Your task to perform on an android device: visit the assistant section in the google photos Image 0: 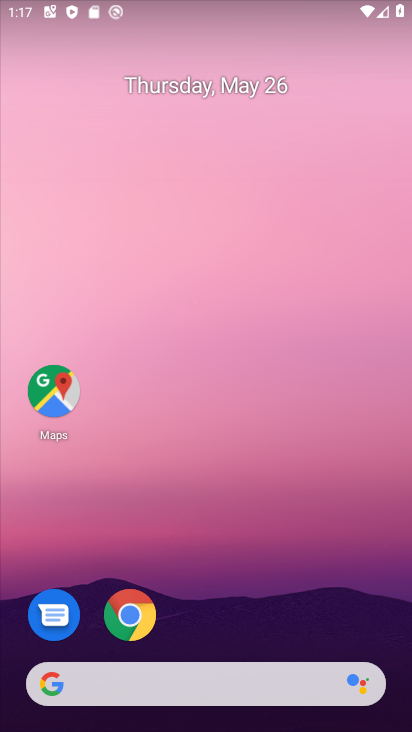
Step 0: drag from (225, 605) to (272, 144)
Your task to perform on an android device: visit the assistant section in the google photos Image 1: 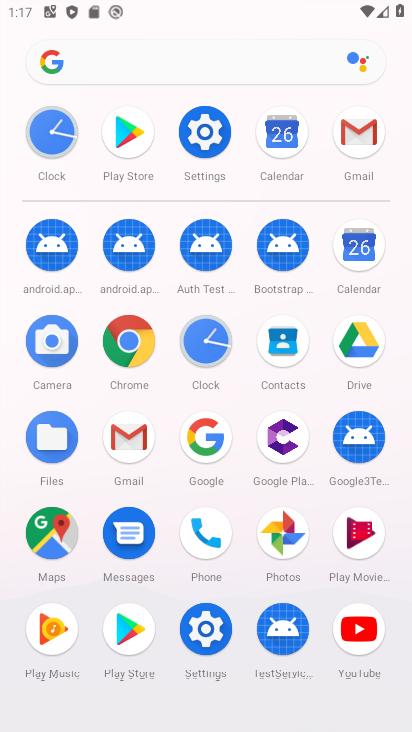
Step 1: click (290, 528)
Your task to perform on an android device: visit the assistant section in the google photos Image 2: 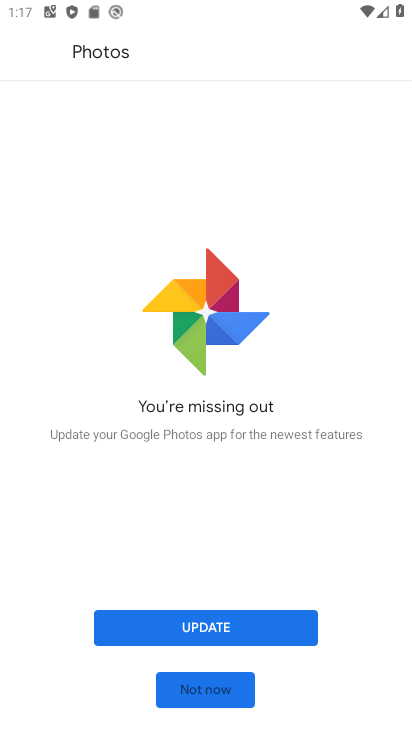
Step 2: click (202, 683)
Your task to perform on an android device: visit the assistant section in the google photos Image 3: 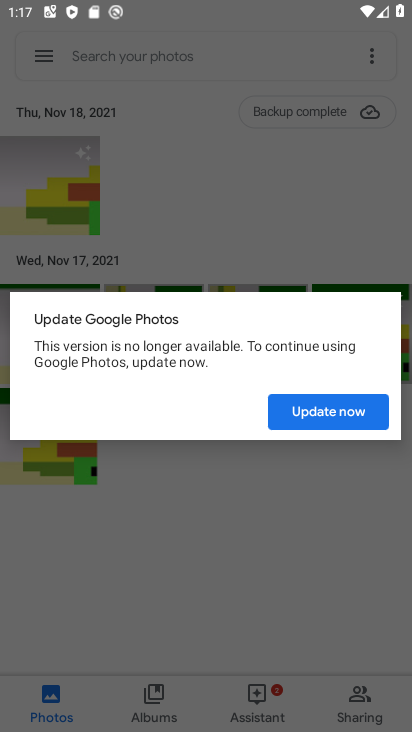
Step 3: click (302, 405)
Your task to perform on an android device: visit the assistant section in the google photos Image 4: 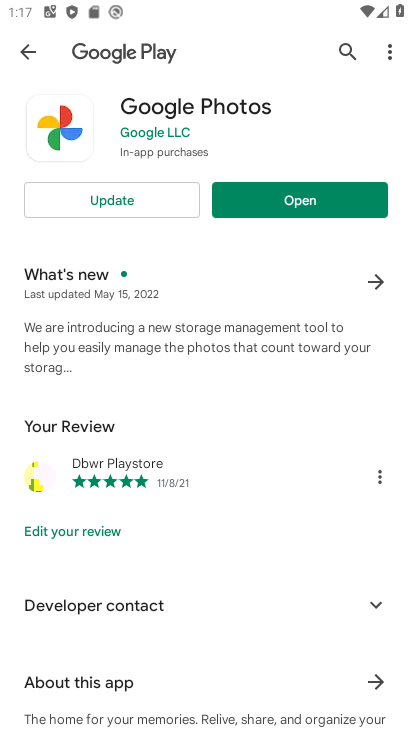
Step 4: click (302, 206)
Your task to perform on an android device: visit the assistant section in the google photos Image 5: 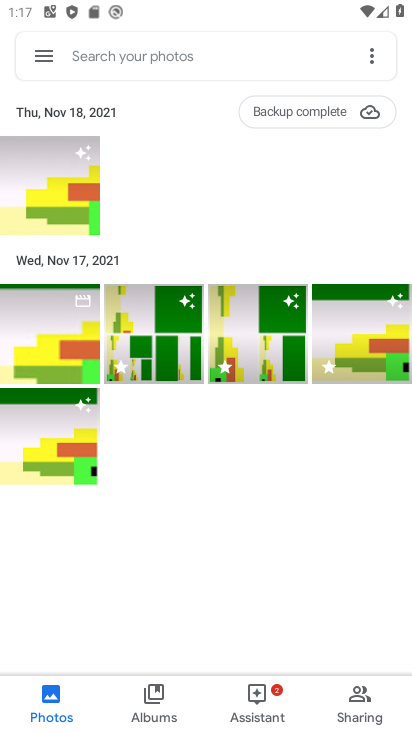
Step 5: click (255, 716)
Your task to perform on an android device: visit the assistant section in the google photos Image 6: 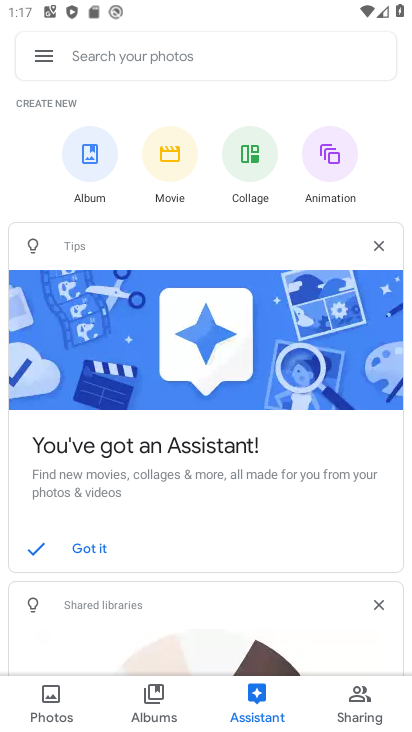
Step 6: task complete